Your task to perform on an android device: find photos in the google photos app Image 0: 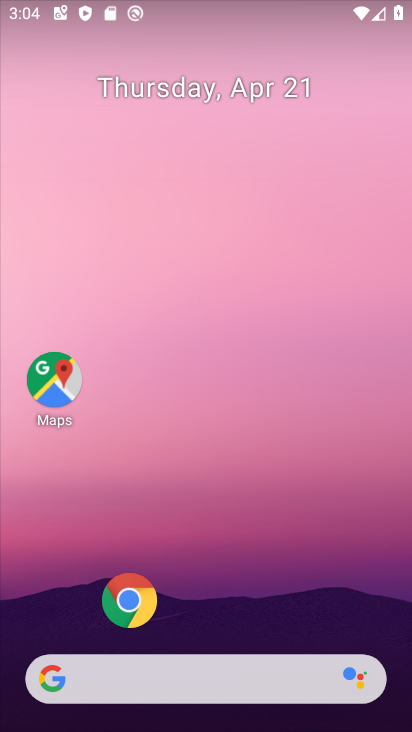
Step 0: drag from (184, 605) to (249, 302)
Your task to perform on an android device: find photos in the google photos app Image 1: 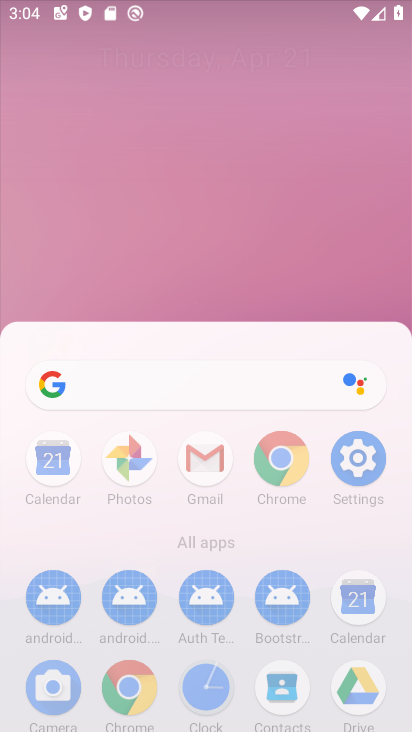
Step 1: drag from (268, 574) to (248, 151)
Your task to perform on an android device: find photos in the google photos app Image 2: 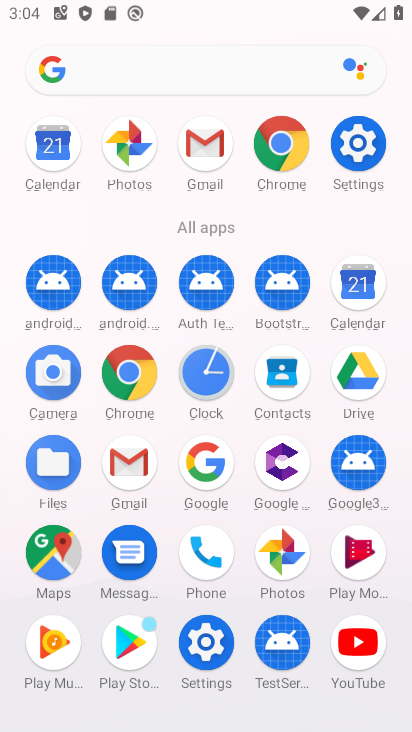
Step 2: click (290, 560)
Your task to perform on an android device: find photos in the google photos app Image 3: 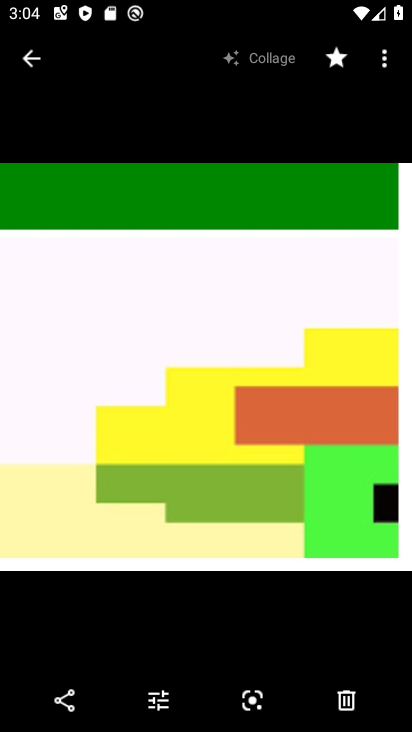
Step 3: click (31, 74)
Your task to perform on an android device: find photos in the google photos app Image 4: 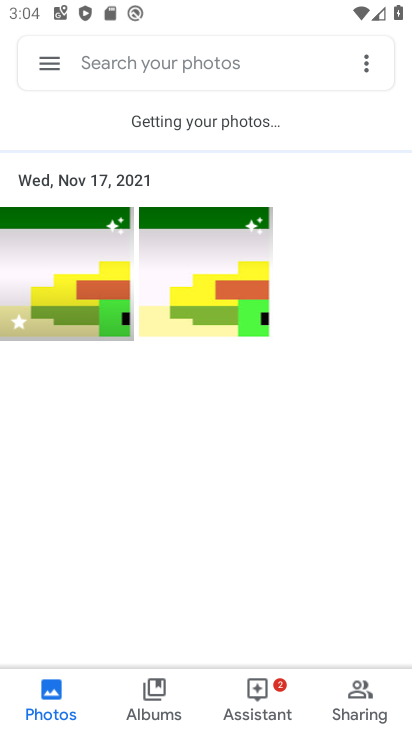
Step 4: click (67, 254)
Your task to perform on an android device: find photos in the google photos app Image 5: 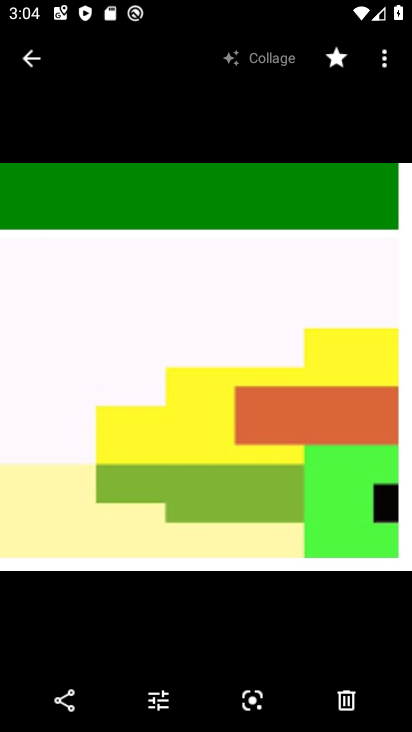
Step 5: task complete